Your task to perform on an android device: all mails in gmail Image 0: 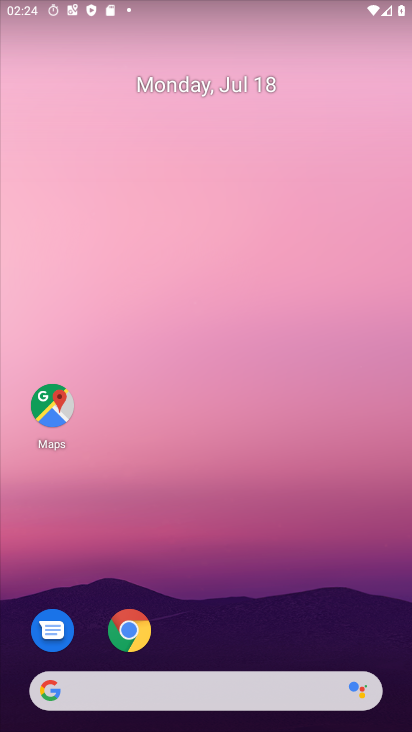
Step 0: drag from (204, 657) to (107, 13)
Your task to perform on an android device: all mails in gmail Image 1: 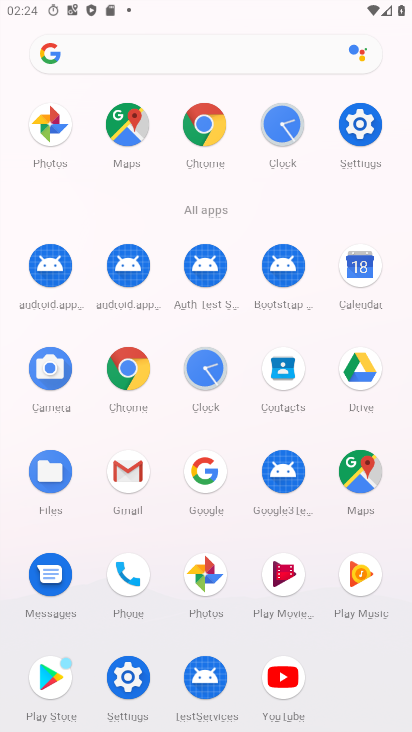
Step 1: click (135, 464)
Your task to perform on an android device: all mails in gmail Image 2: 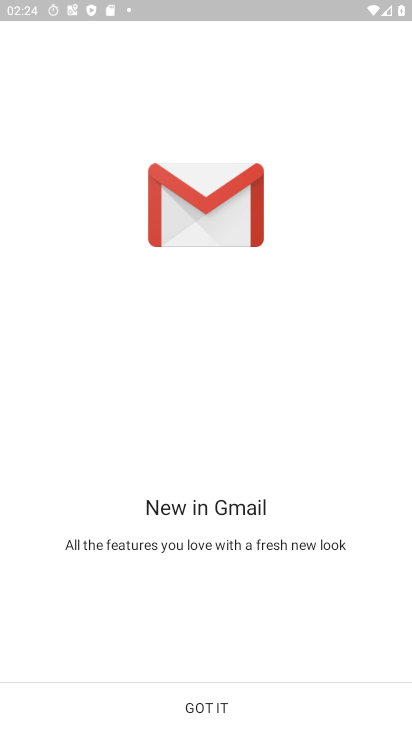
Step 2: click (217, 705)
Your task to perform on an android device: all mails in gmail Image 3: 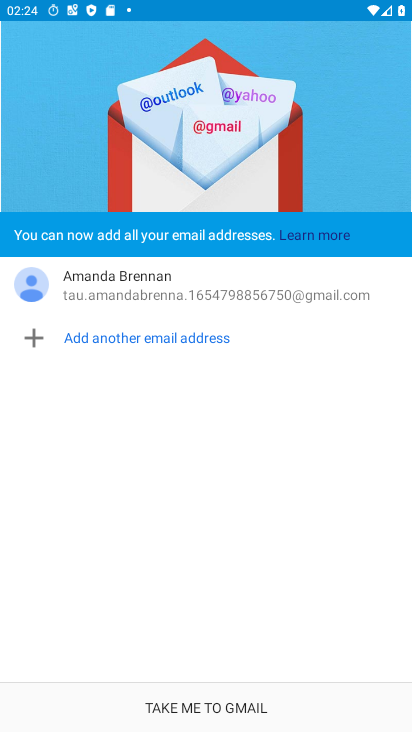
Step 3: click (215, 707)
Your task to perform on an android device: all mails in gmail Image 4: 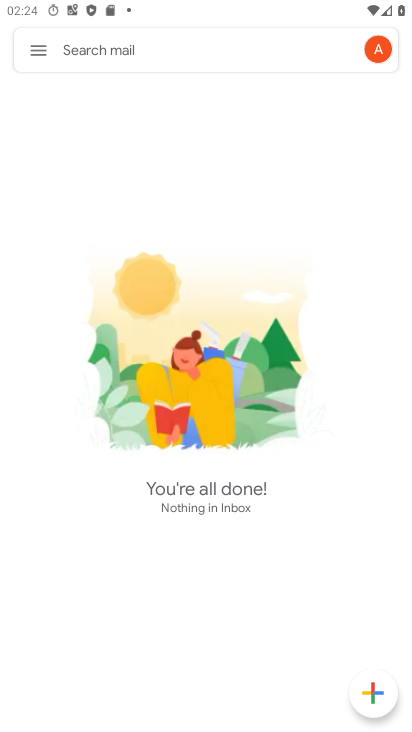
Step 4: click (45, 42)
Your task to perform on an android device: all mails in gmail Image 5: 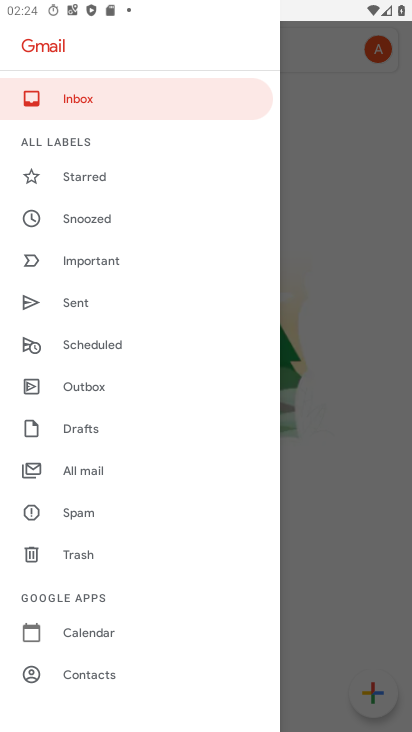
Step 5: click (76, 479)
Your task to perform on an android device: all mails in gmail Image 6: 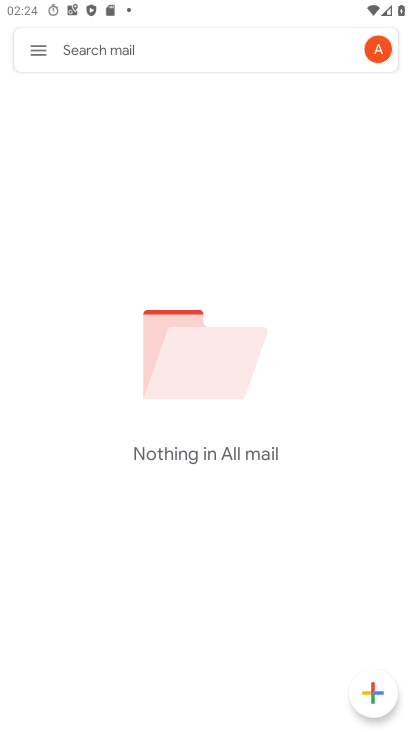
Step 6: task complete